Your task to perform on an android device: turn off priority inbox in the gmail app Image 0: 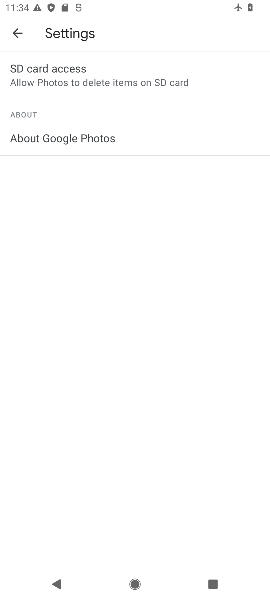
Step 0: press home button
Your task to perform on an android device: turn off priority inbox in the gmail app Image 1: 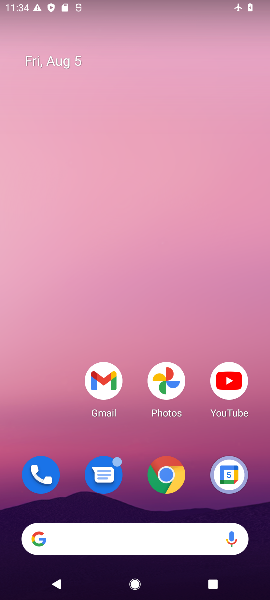
Step 1: click (107, 401)
Your task to perform on an android device: turn off priority inbox in the gmail app Image 2: 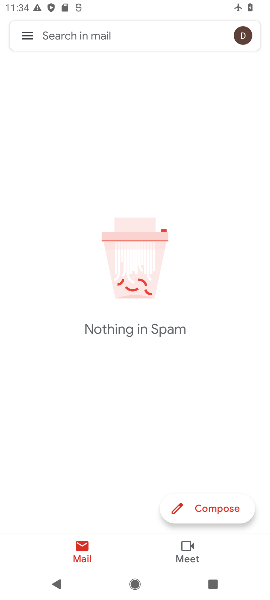
Step 2: click (23, 38)
Your task to perform on an android device: turn off priority inbox in the gmail app Image 3: 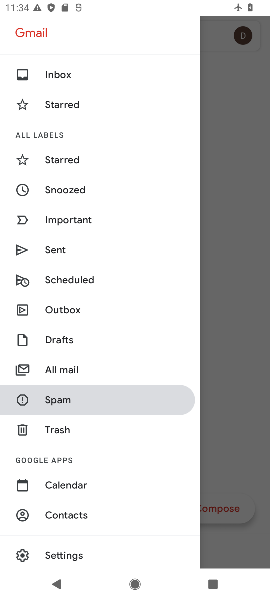
Step 3: drag from (69, 485) to (86, 306)
Your task to perform on an android device: turn off priority inbox in the gmail app Image 4: 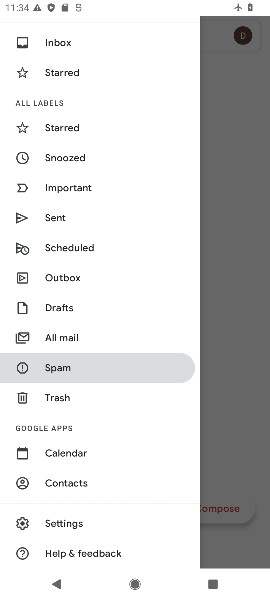
Step 4: drag from (36, 522) to (41, 496)
Your task to perform on an android device: turn off priority inbox in the gmail app Image 5: 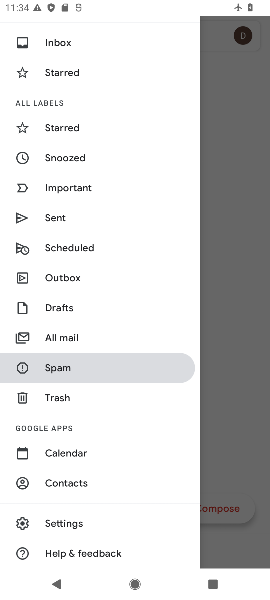
Step 5: click (68, 524)
Your task to perform on an android device: turn off priority inbox in the gmail app Image 6: 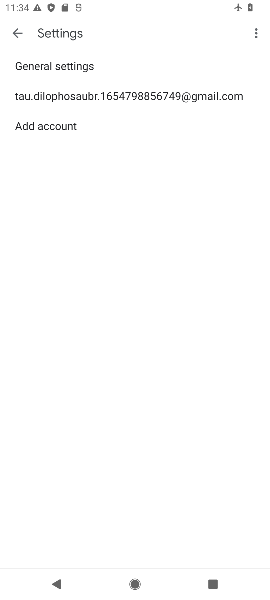
Step 6: click (54, 98)
Your task to perform on an android device: turn off priority inbox in the gmail app Image 7: 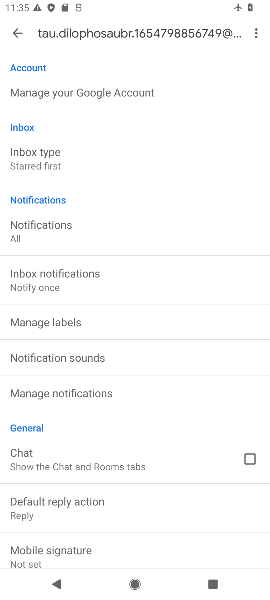
Step 7: click (23, 159)
Your task to perform on an android device: turn off priority inbox in the gmail app Image 8: 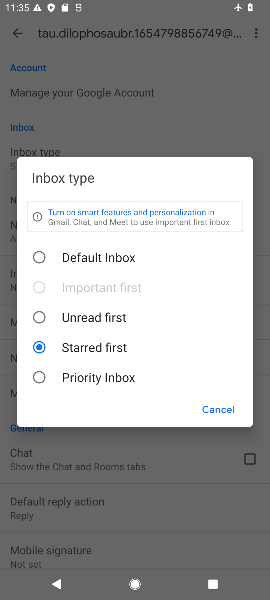
Step 8: click (48, 256)
Your task to perform on an android device: turn off priority inbox in the gmail app Image 9: 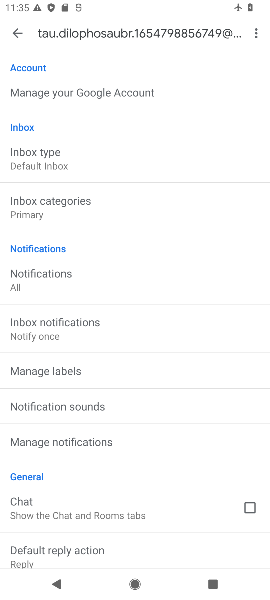
Step 9: task complete